Your task to perform on an android device: Open Google Maps Image 0: 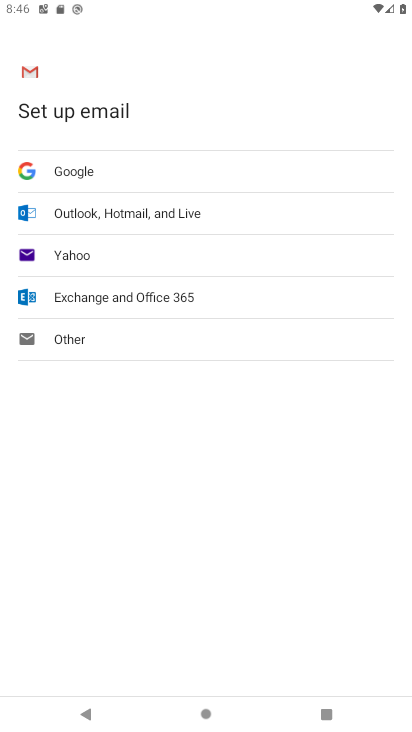
Step 0: press home button
Your task to perform on an android device: Open Google Maps Image 1: 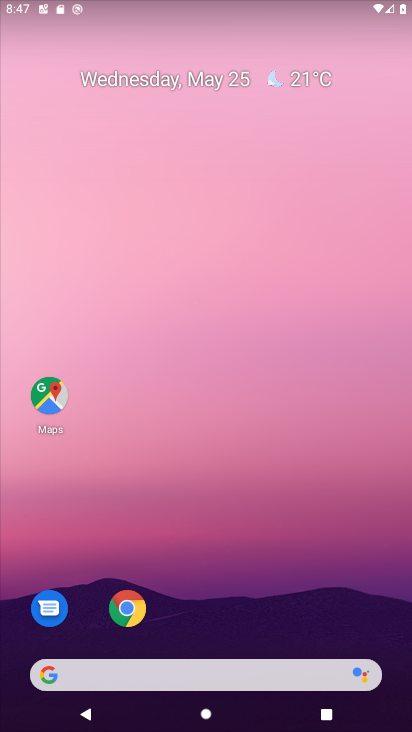
Step 1: drag from (233, 728) to (232, 147)
Your task to perform on an android device: Open Google Maps Image 2: 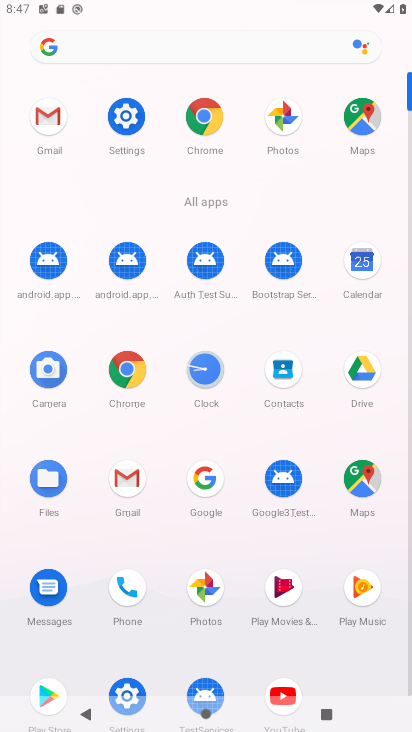
Step 2: click (360, 477)
Your task to perform on an android device: Open Google Maps Image 3: 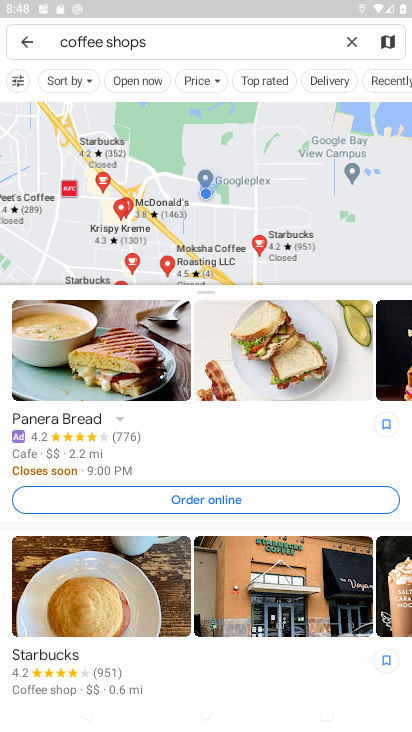
Step 3: task complete